Your task to perform on an android device: toggle notification dots Image 0: 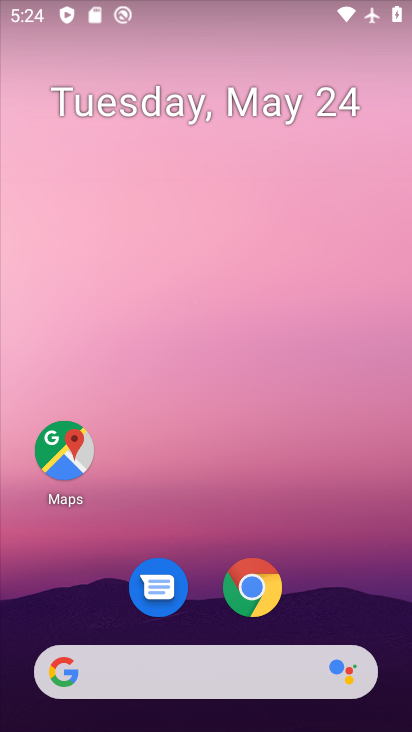
Step 0: drag from (334, 395) to (243, 13)
Your task to perform on an android device: toggle notification dots Image 1: 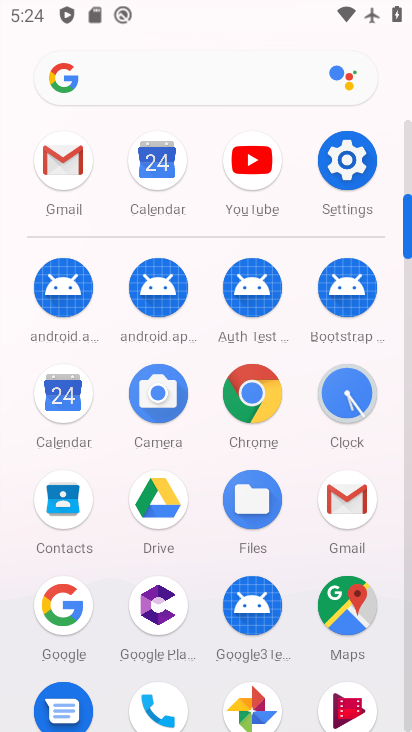
Step 1: click (351, 175)
Your task to perform on an android device: toggle notification dots Image 2: 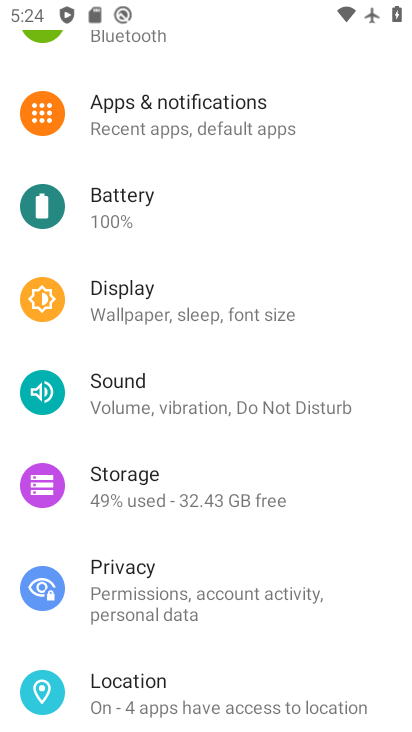
Step 2: click (217, 123)
Your task to perform on an android device: toggle notification dots Image 3: 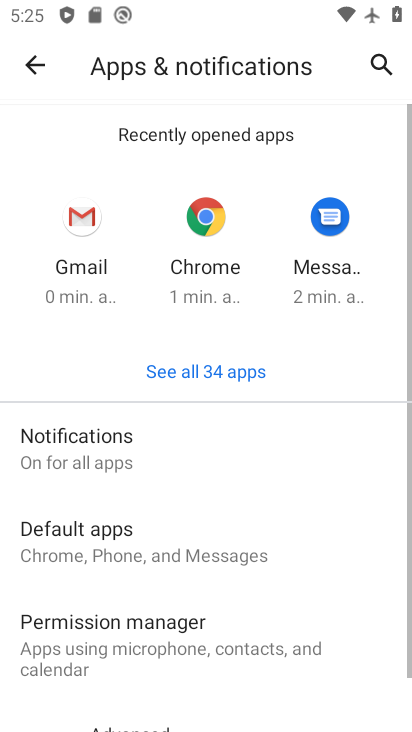
Step 3: click (152, 472)
Your task to perform on an android device: toggle notification dots Image 4: 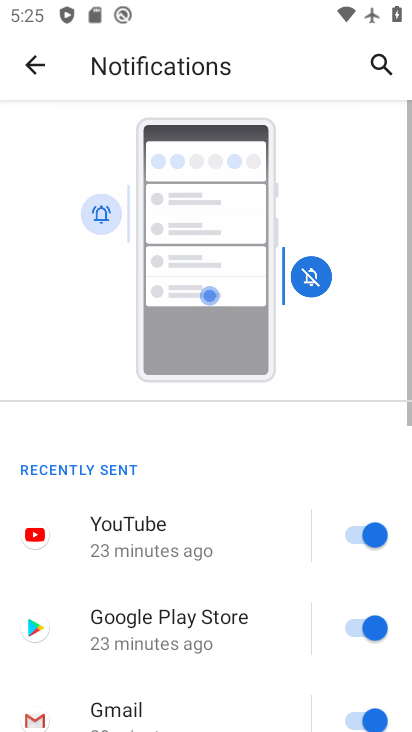
Step 4: drag from (272, 608) to (274, 87)
Your task to perform on an android device: toggle notification dots Image 5: 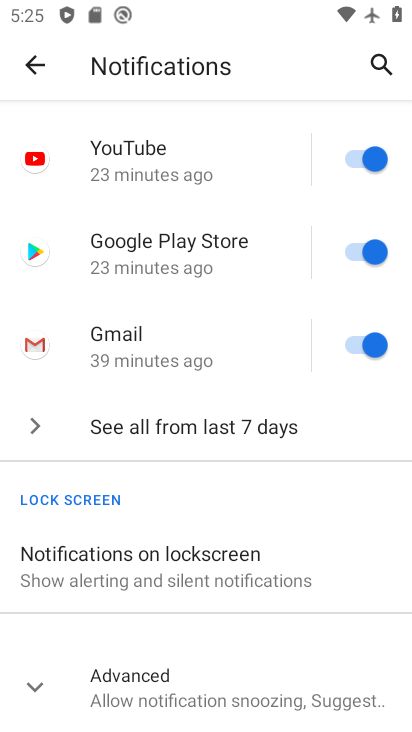
Step 5: click (220, 686)
Your task to perform on an android device: toggle notification dots Image 6: 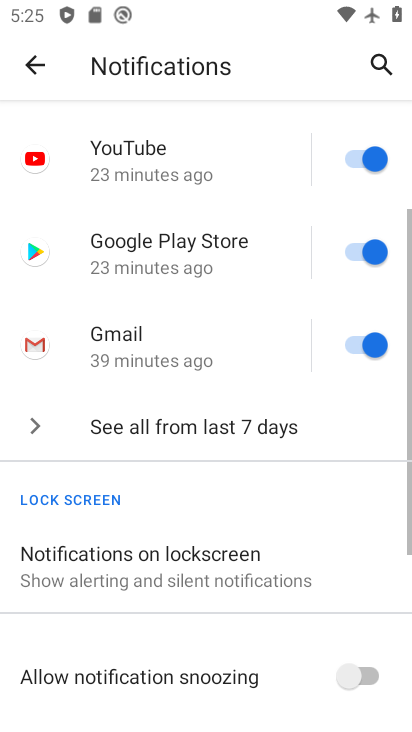
Step 6: drag from (206, 630) to (209, 157)
Your task to perform on an android device: toggle notification dots Image 7: 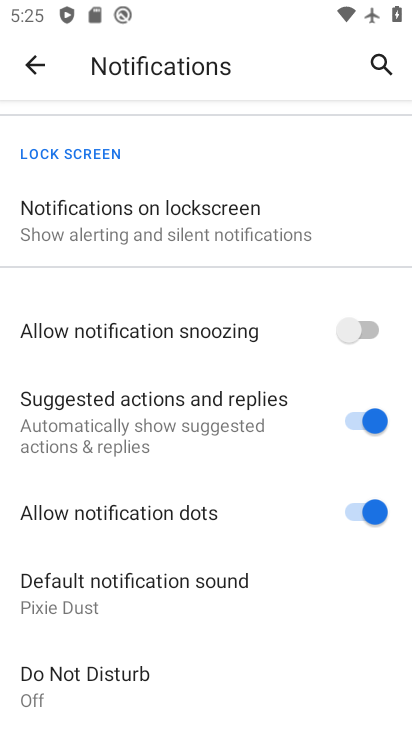
Step 7: click (375, 511)
Your task to perform on an android device: toggle notification dots Image 8: 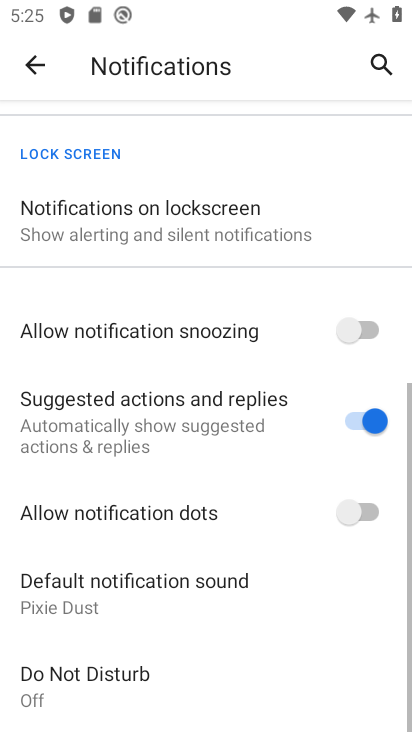
Step 8: task complete